Your task to perform on an android device: Open notification settings Image 0: 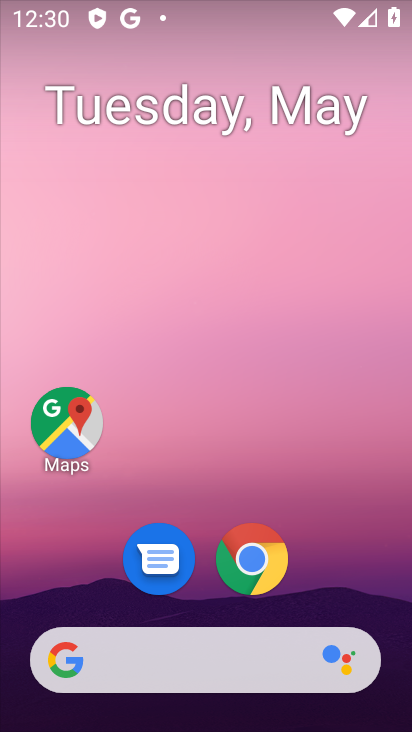
Step 0: drag from (305, 530) to (315, 260)
Your task to perform on an android device: Open notification settings Image 1: 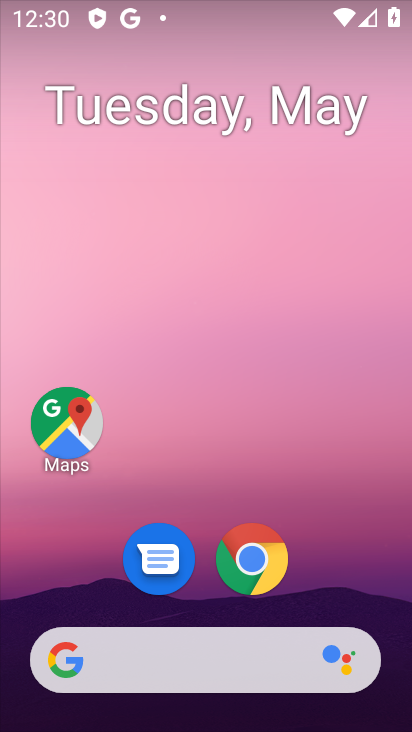
Step 1: drag from (293, 608) to (286, 249)
Your task to perform on an android device: Open notification settings Image 2: 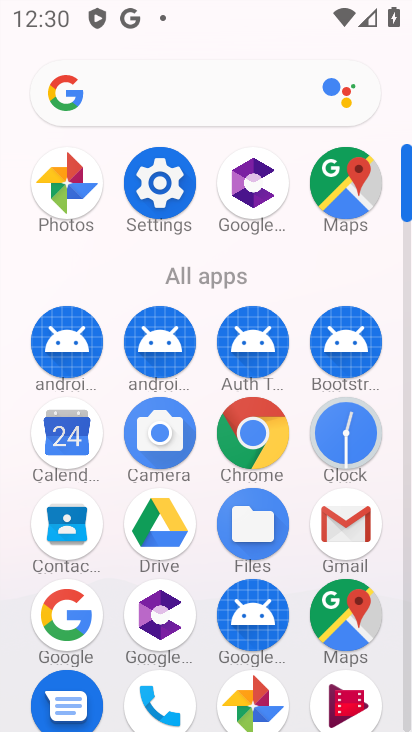
Step 2: click (161, 214)
Your task to perform on an android device: Open notification settings Image 3: 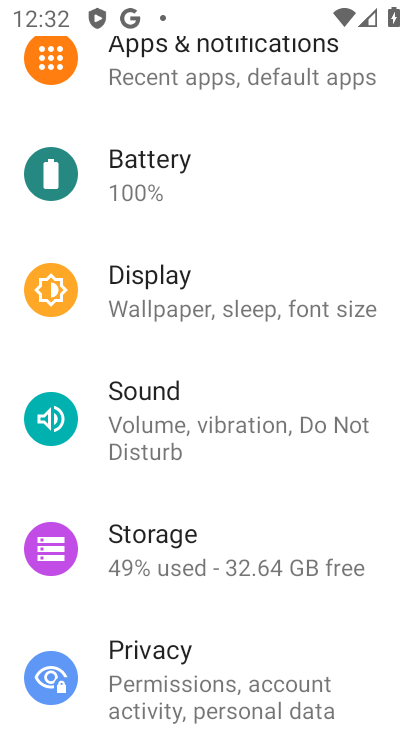
Step 3: drag from (171, 621) to (172, 385)
Your task to perform on an android device: Open notification settings Image 4: 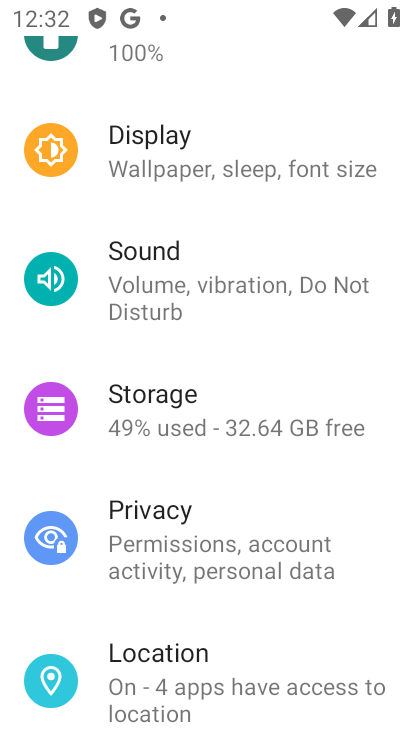
Step 4: drag from (192, 618) to (207, 384)
Your task to perform on an android device: Open notification settings Image 5: 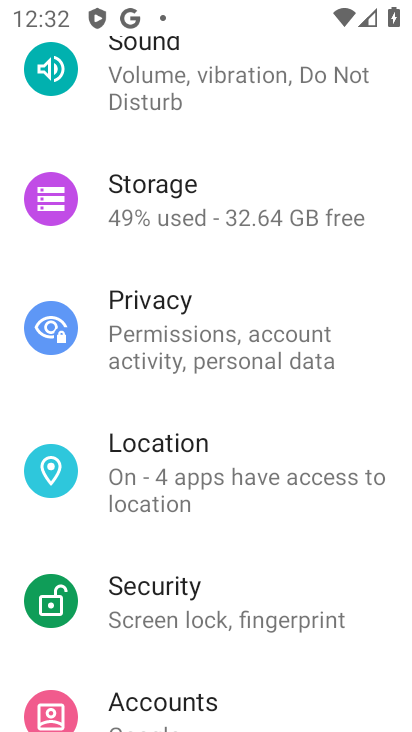
Step 5: drag from (226, 308) to (285, 698)
Your task to perform on an android device: Open notification settings Image 6: 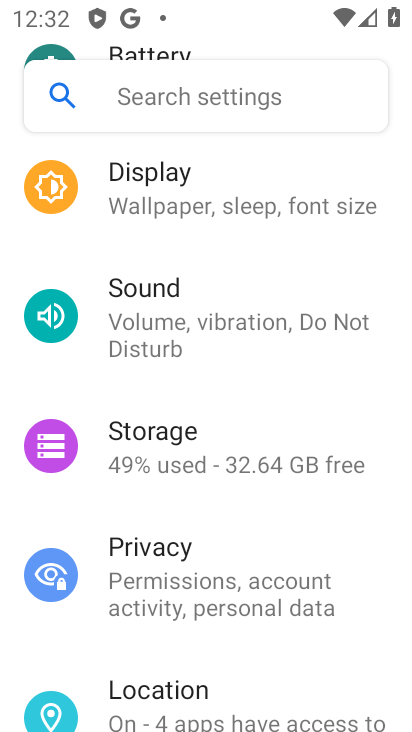
Step 6: drag from (255, 259) to (236, 709)
Your task to perform on an android device: Open notification settings Image 7: 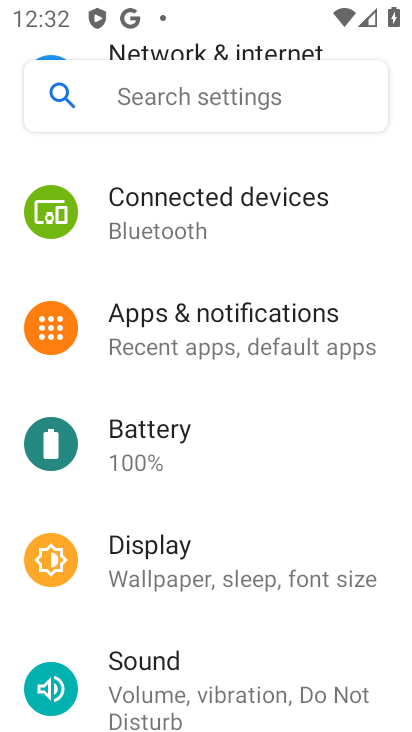
Step 7: click (205, 332)
Your task to perform on an android device: Open notification settings Image 8: 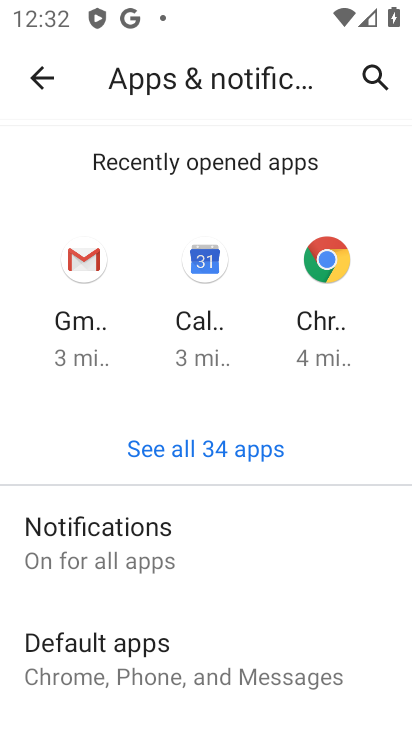
Step 8: click (164, 534)
Your task to perform on an android device: Open notification settings Image 9: 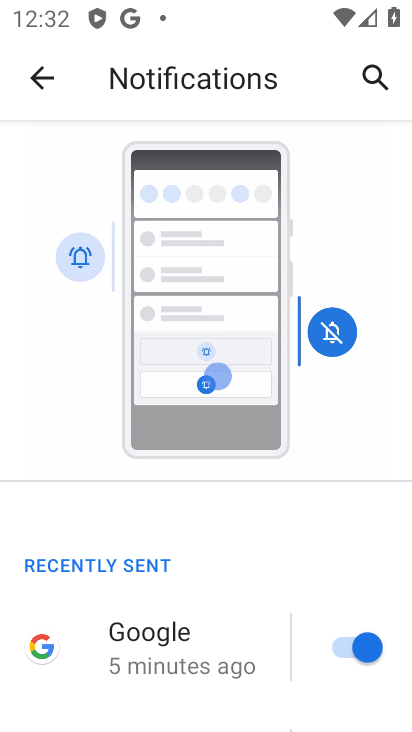
Step 9: drag from (216, 580) to (231, 342)
Your task to perform on an android device: Open notification settings Image 10: 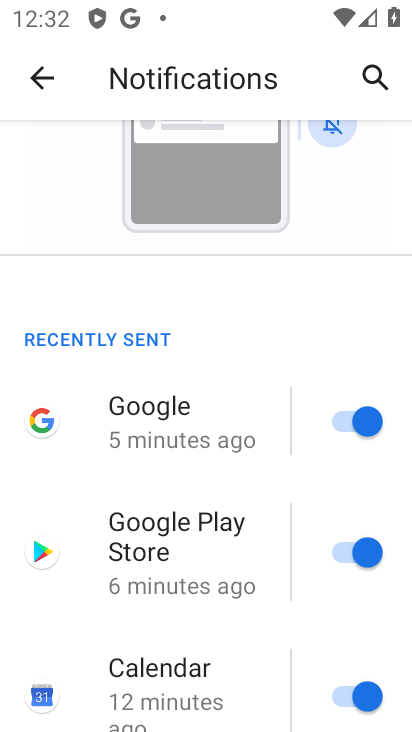
Step 10: drag from (167, 671) to (104, 218)
Your task to perform on an android device: Open notification settings Image 11: 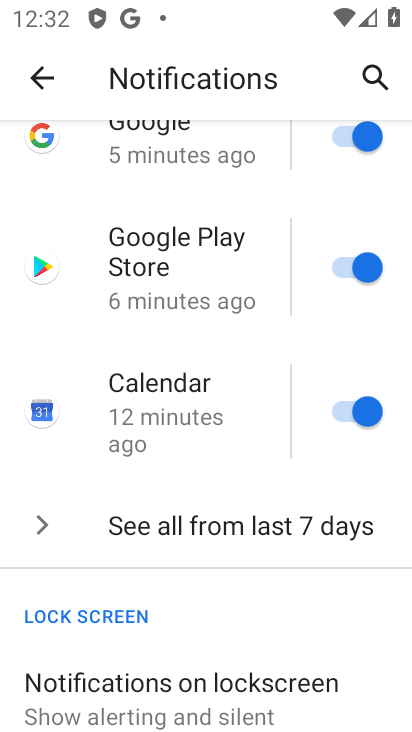
Step 11: drag from (203, 552) to (181, 198)
Your task to perform on an android device: Open notification settings Image 12: 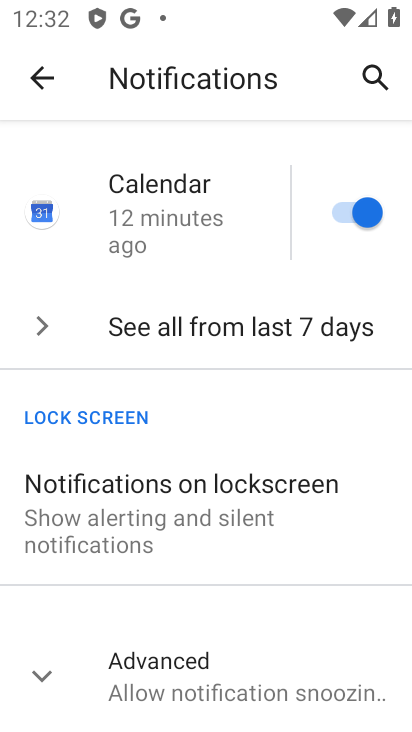
Step 12: click (220, 669)
Your task to perform on an android device: Open notification settings Image 13: 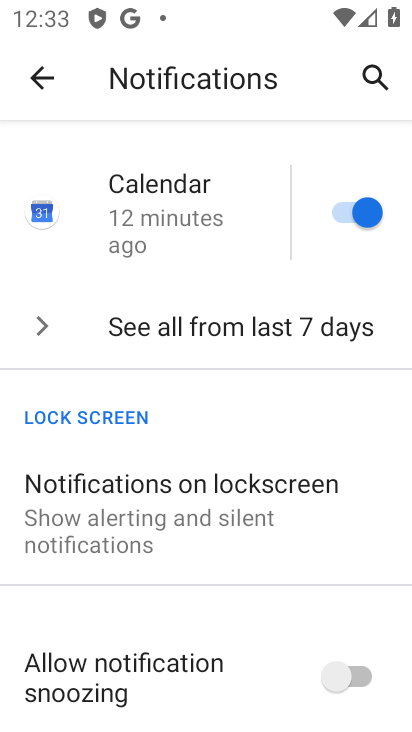
Step 13: task complete